Your task to perform on an android device: toggle sleep mode Image 0: 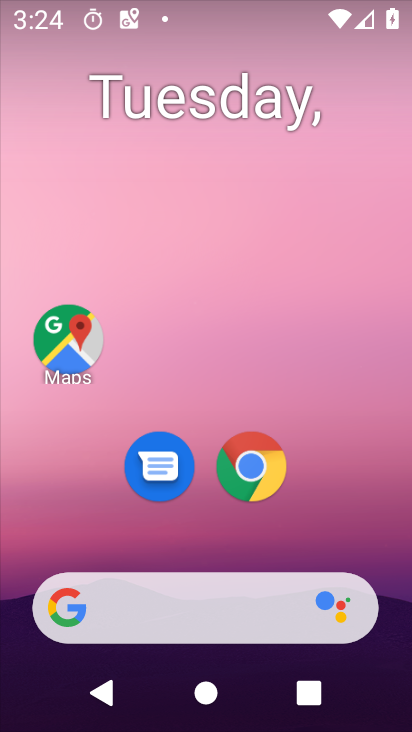
Step 0: drag from (383, 537) to (363, 152)
Your task to perform on an android device: toggle sleep mode Image 1: 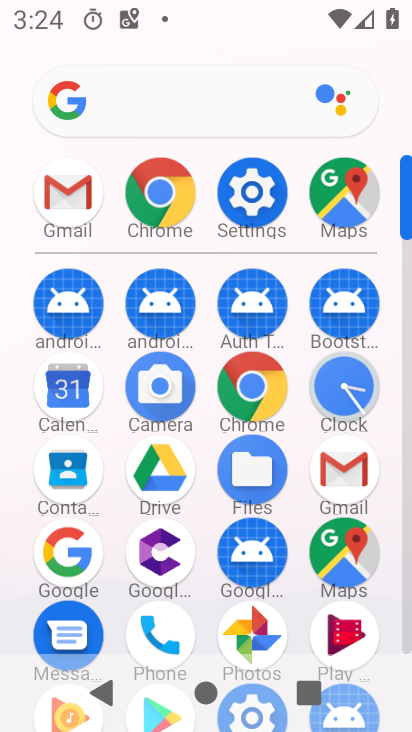
Step 1: click (255, 202)
Your task to perform on an android device: toggle sleep mode Image 2: 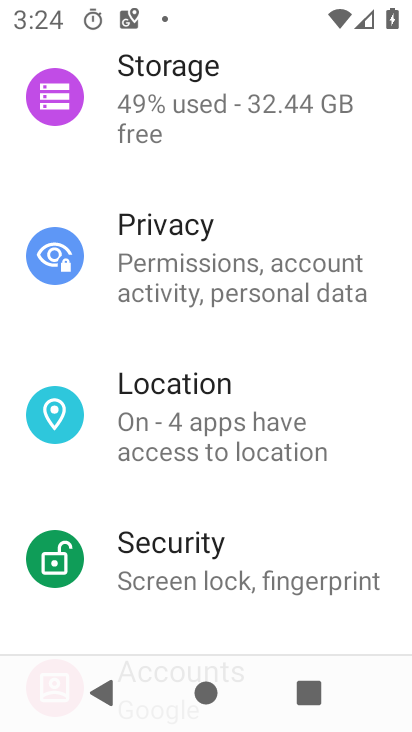
Step 2: drag from (334, 167) to (342, 322)
Your task to perform on an android device: toggle sleep mode Image 3: 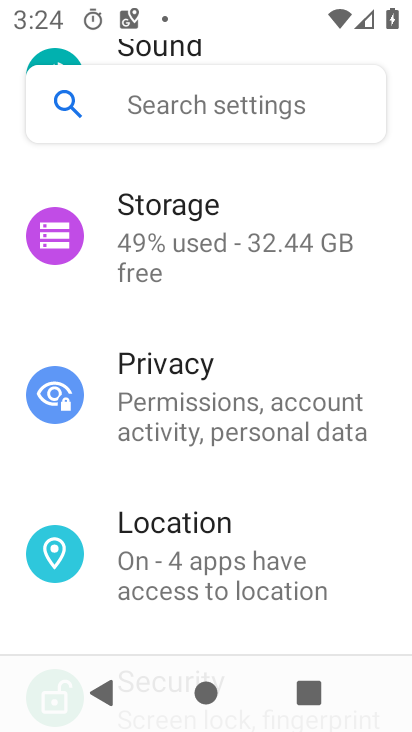
Step 3: drag from (373, 180) to (371, 335)
Your task to perform on an android device: toggle sleep mode Image 4: 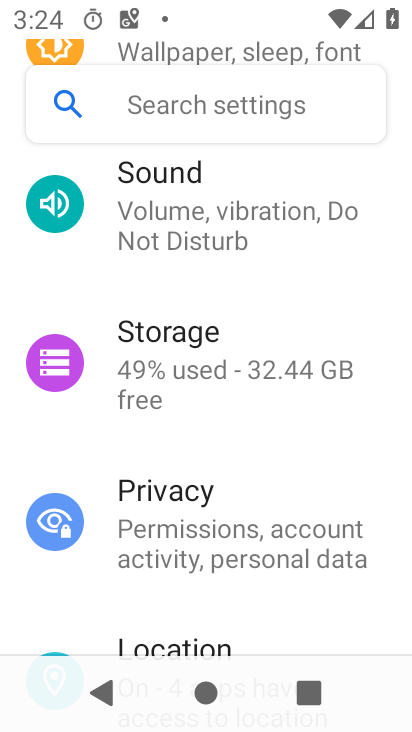
Step 4: drag from (380, 180) to (371, 337)
Your task to perform on an android device: toggle sleep mode Image 5: 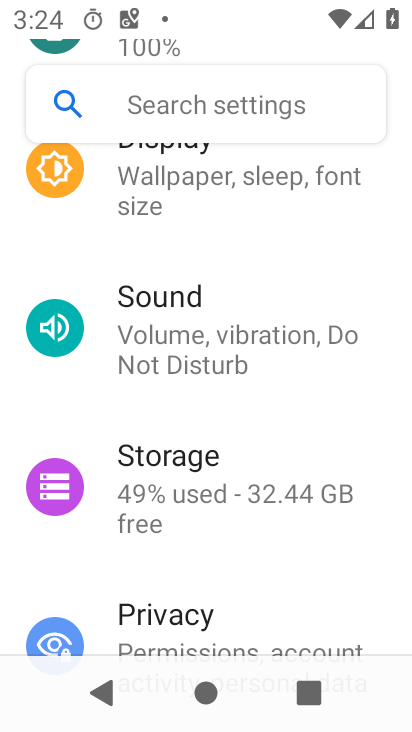
Step 5: drag from (372, 206) to (364, 344)
Your task to perform on an android device: toggle sleep mode Image 6: 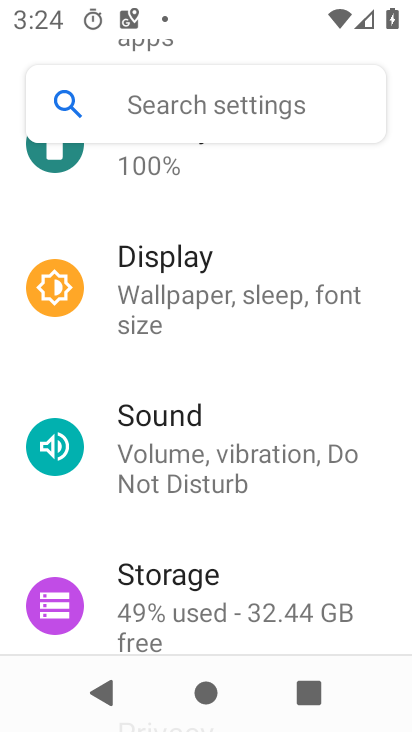
Step 6: drag from (371, 179) to (372, 347)
Your task to perform on an android device: toggle sleep mode Image 7: 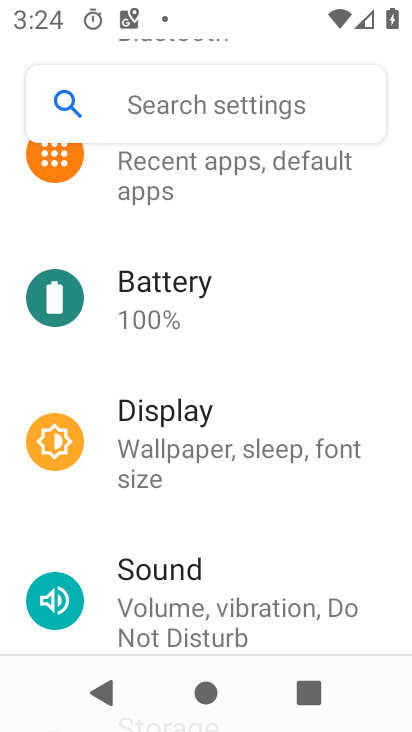
Step 7: click (253, 439)
Your task to perform on an android device: toggle sleep mode Image 8: 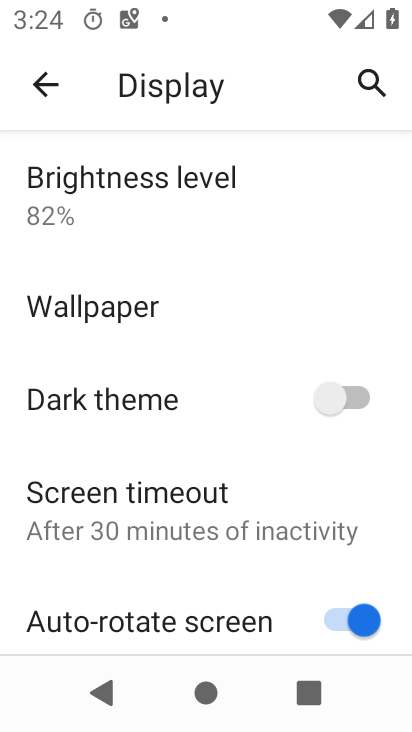
Step 8: drag from (253, 439) to (279, 277)
Your task to perform on an android device: toggle sleep mode Image 9: 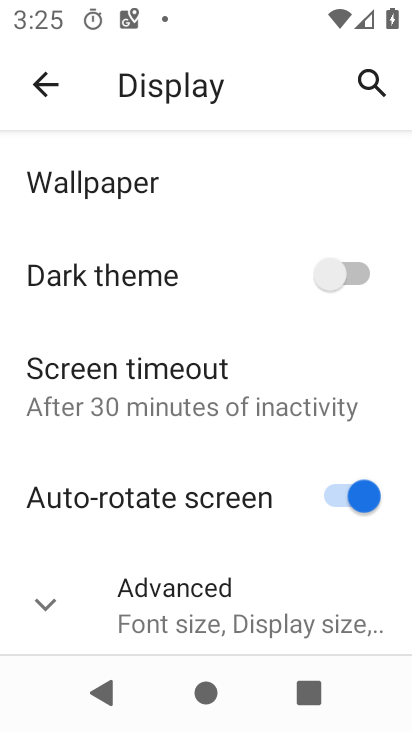
Step 9: click (261, 601)
Your task to perform on an android device: toggle sleep mode Image 10: 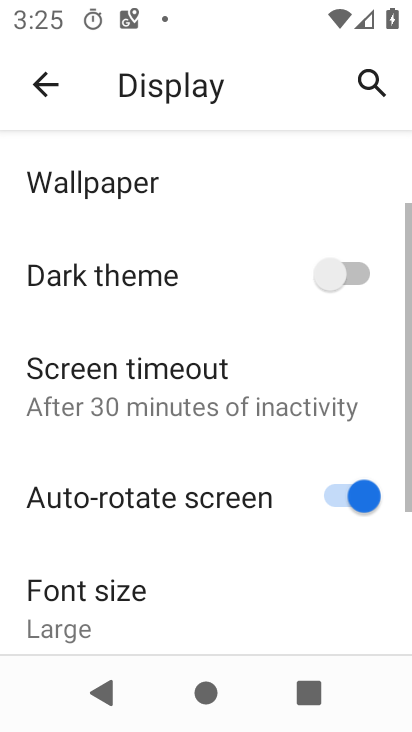
Step 10: task complete